Your task to perform on an android device: see creations saved in the google photos Image 0: 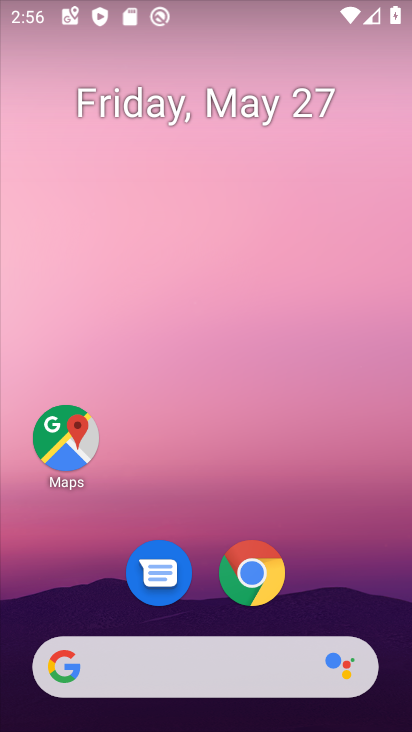
Step 0: drag from (256, 452) to (240, 9)
Your task to perform on an android device: see creations saved in the google photos Image 1: 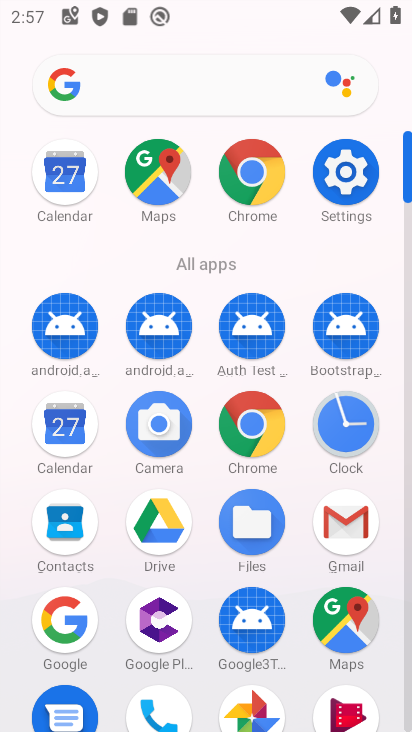
Step 1: drag from (298, 461) to (303, 208)
Your task to perform on an android device: see creations saved in the google photos Image 2: 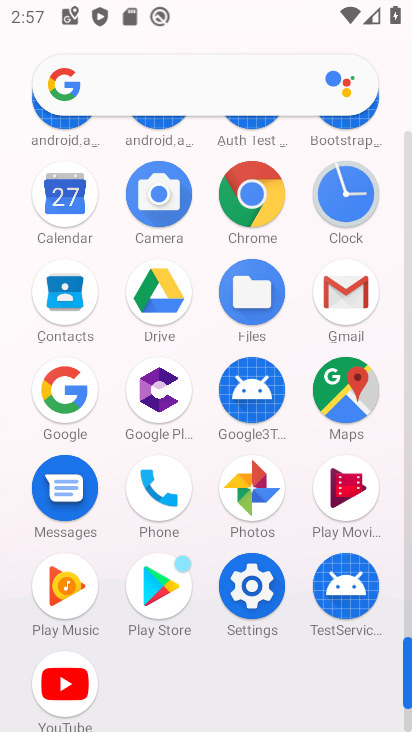
Step 2: click (253, 483)
Your task to perform on an android device: see creations saved in the google photos Image 3: 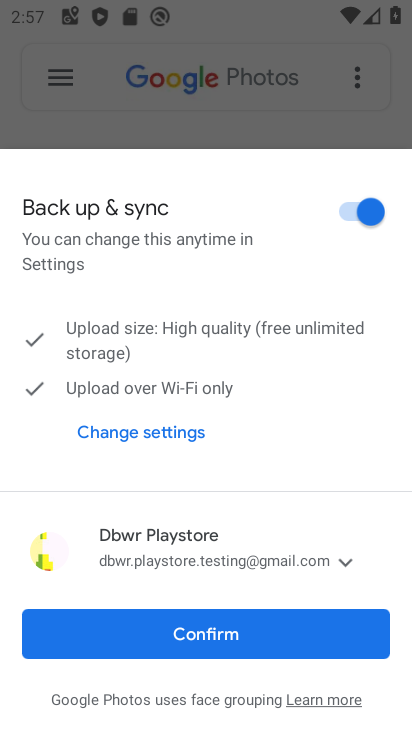
Step 3: click (164, 76)
Your task to perform on an android device: see creations saved in the google photos Image 4: 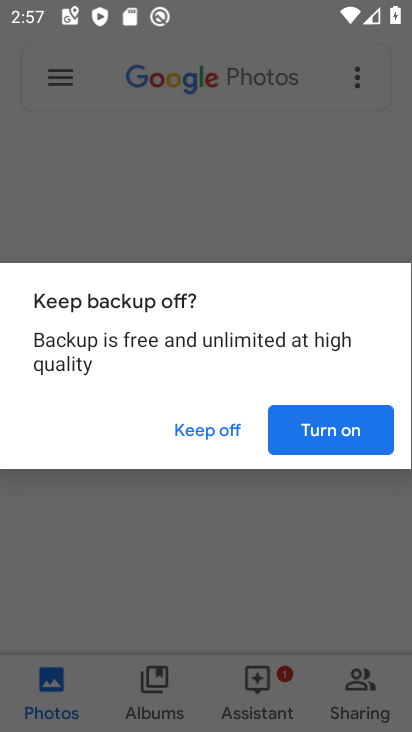
Step 4: click (359, 431)
Your task to perform on an android device: see creations saved in the google photos Image 5: 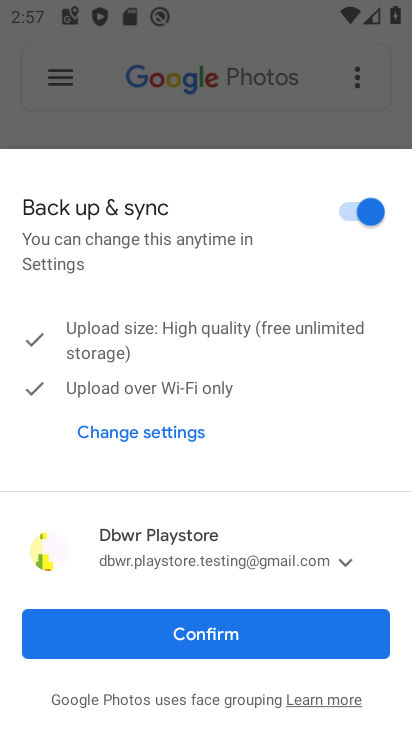
Step 5: click (268, 629)
Your task to perform on an android device: see creations saved in the google photos Image 6: 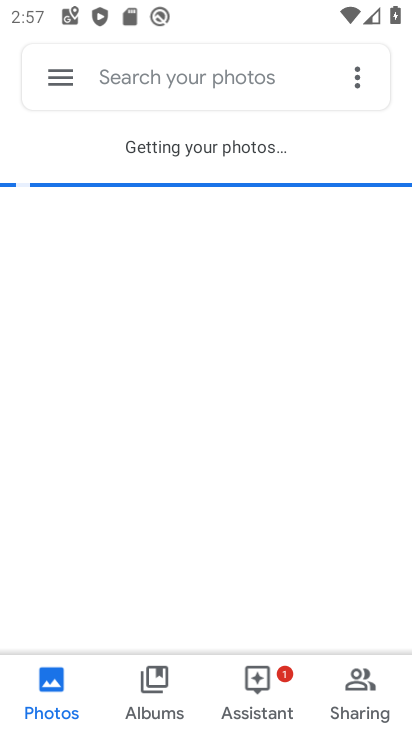
Step 6: click (250, 72)
Your task to perform on an android device: see creations saved in the google photos Image 7: 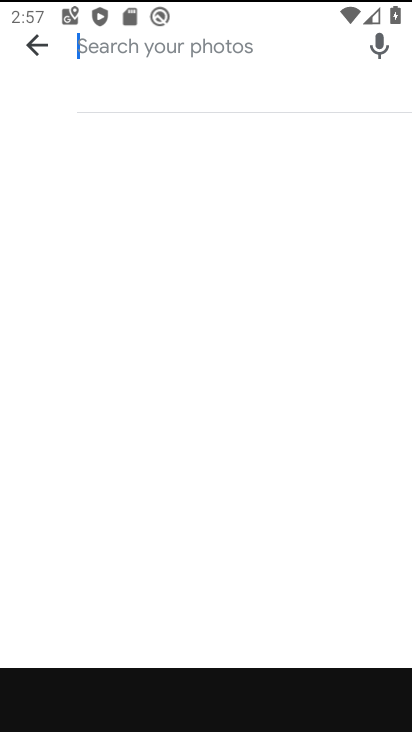
Step 7: click (250, 72)
Your task to perform on an android device: see creations saved in the google photos Image 8: 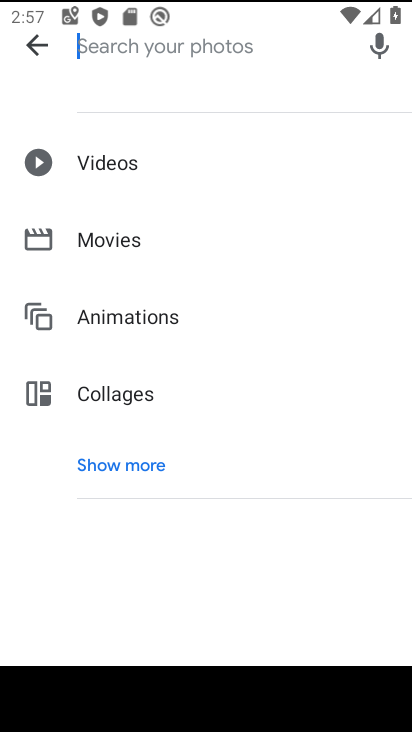
Step 8: click (130, 462)
Your task to perform on an android device: see creations saved in the google photos Image 9: 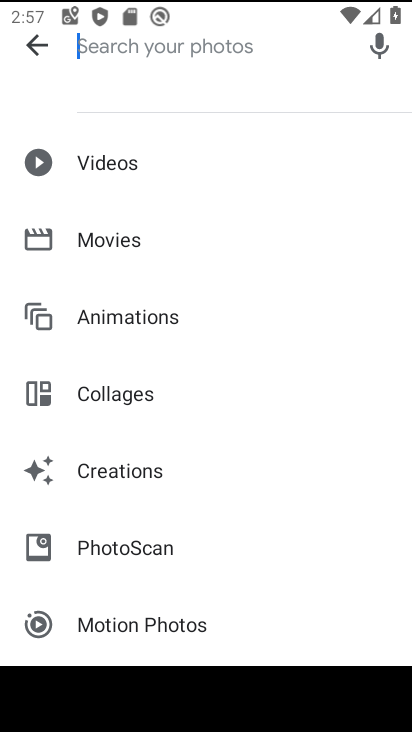
Step 9: click (116, 469)
Your task to perform on an android device: see creations saved in the google photos Image 10: 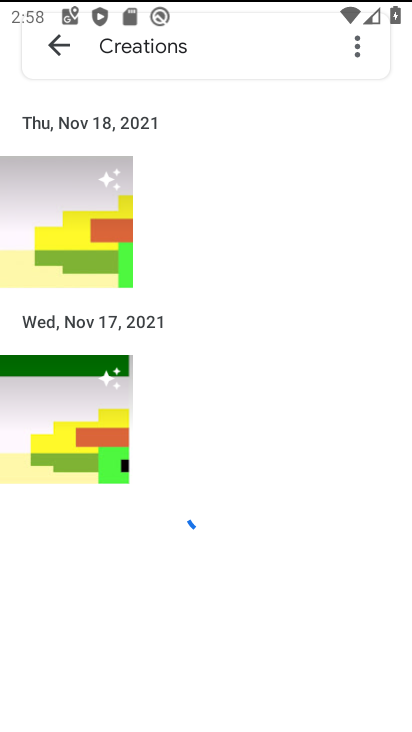
Step 10: task complete